Your task to perform on an android device: turn off sleep mode Image 0: 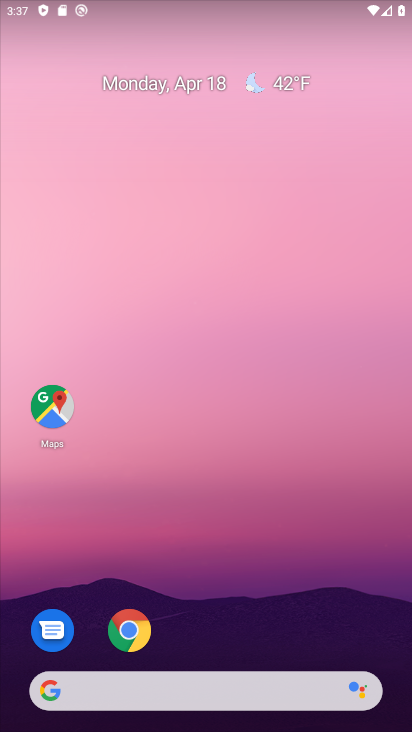
Step 0: drag from (253, 305) to (287, 5)
Your task to perform on an android device: turn off sleep mode Image 1: 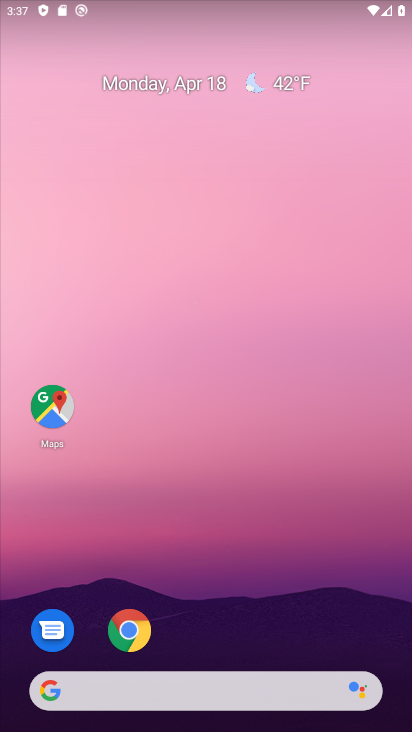
Step 1: drag from (246, 522) to (324, 120)
Your task to perform on an android device: turn off sleep mode Image 2: 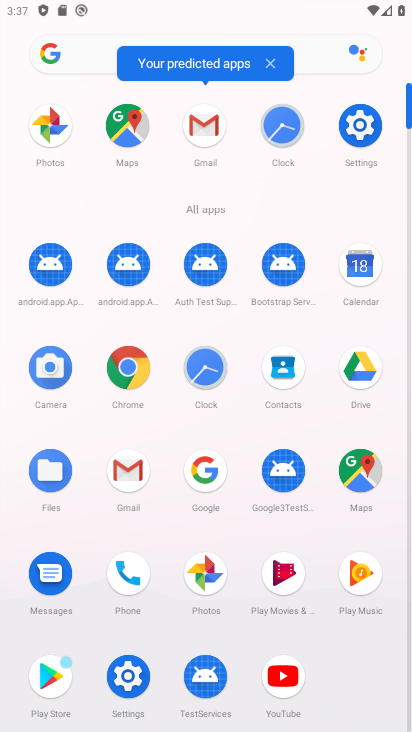
Step 2: click (135, 691)
Your task to perform on an android device: turn off sleep mode Image 3: 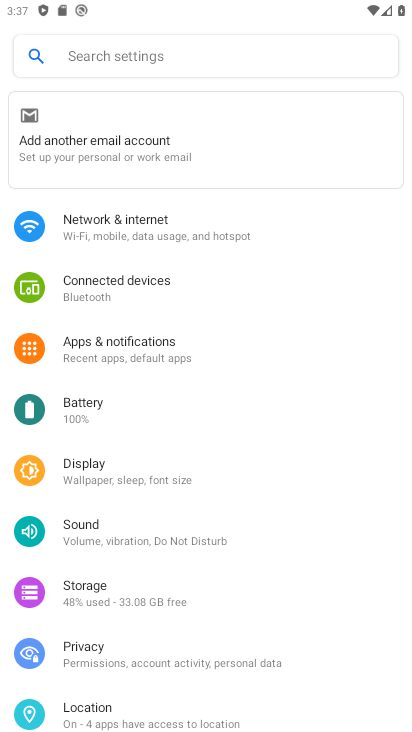
Step 3: click (104, 461)
Your task to perform on an android device: turn off sleep mode Image 4: 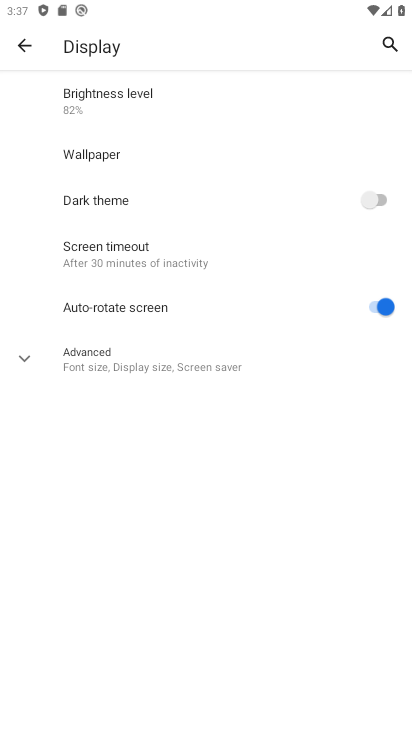
Step 4: click (170, 364)
Your task to perform on an android device: turn off sleep mode Image 5: 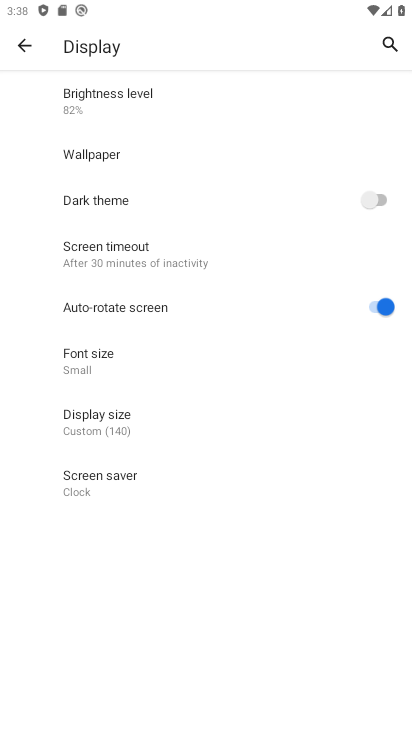
Step 5: task complete